Your task to perform on an android device: turn on wifi Image 0: 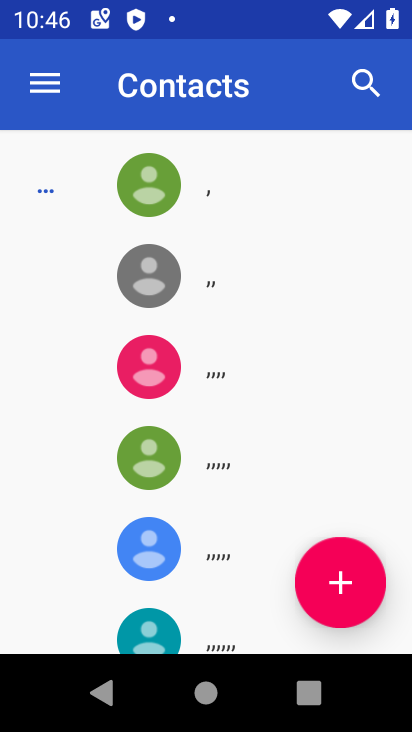
Step 0: press home button
Your task to perform on an android device: turn on wifi Image 1: 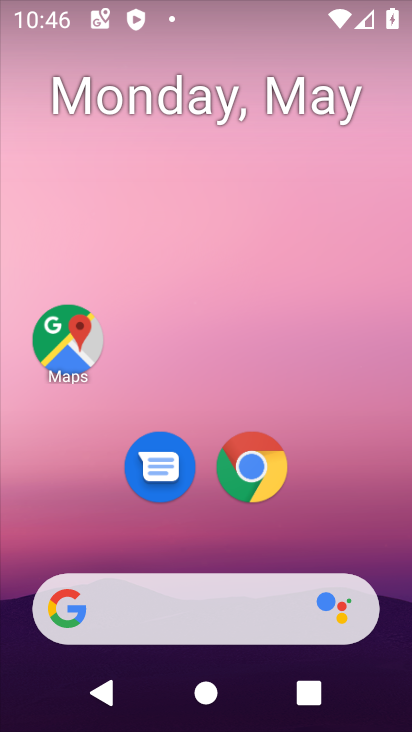
Step 1: drag from (399, 618) to (353, 99)
Your task to perform on an android device: turn on wifi Image 2: 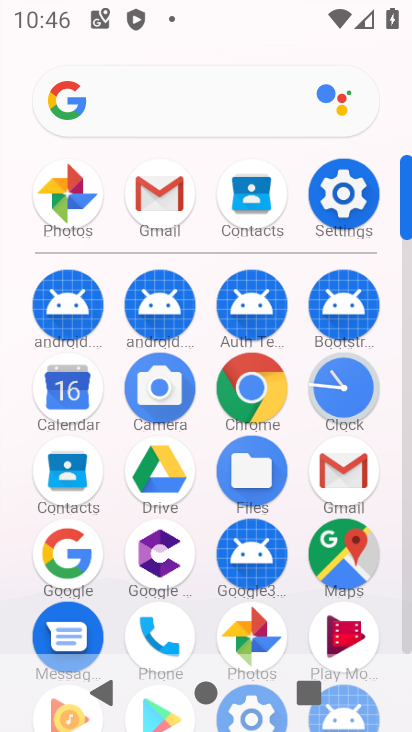
Step 2: click (407, 641)
Your task to perform on an android device: turn on wifi Image 3: 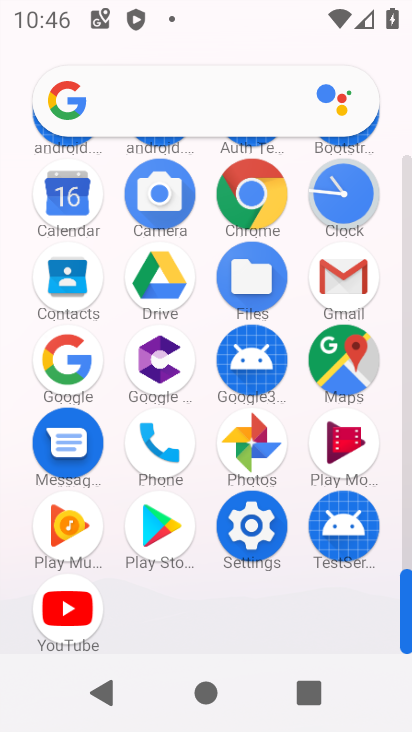
Step 3: click (255, 526)
Your task to perform on an android device: turn on wifi Image 4: 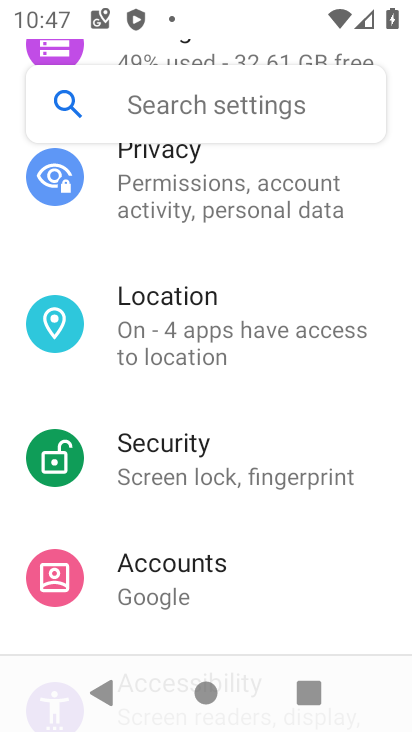
Step 4: drag from (344, 184) to (278, 571)
Your task to perform on an android device: turn on wifi Image 5: 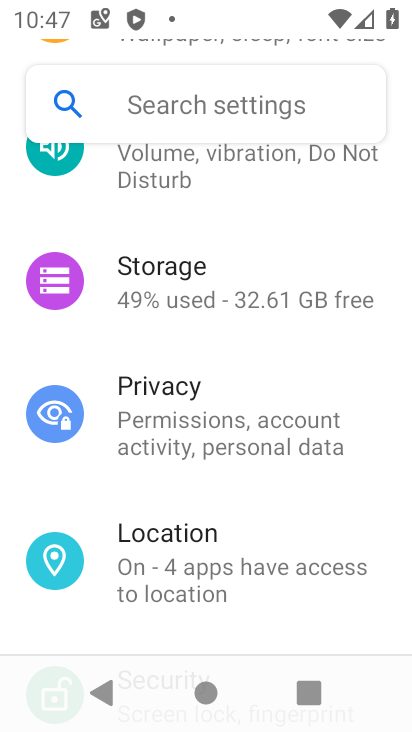
Step 5: drag from (371, 172) to (326, 524)
Your task to perform on an android device: turn on wifi Image 6: 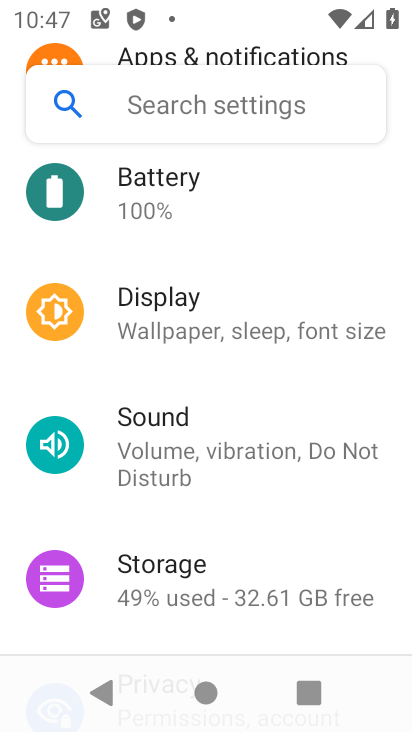
Step 6: drag from (348, 155) to (322, 477)
Your task to perform on an android device: turn on wifi Image 7: 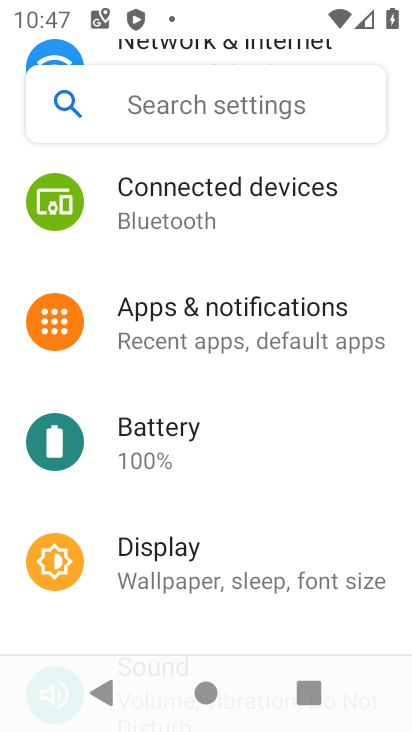
Step 7: drag from (365, 173) to (292, 562)
Your task to perform on an android device: turn on wifi Image 8: 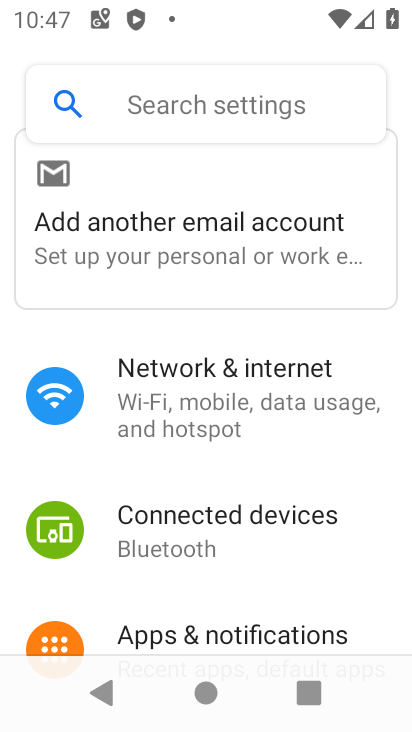
Step 8: click (171, 403)
Your task to perform on an android device: turn on wifi Image 9: 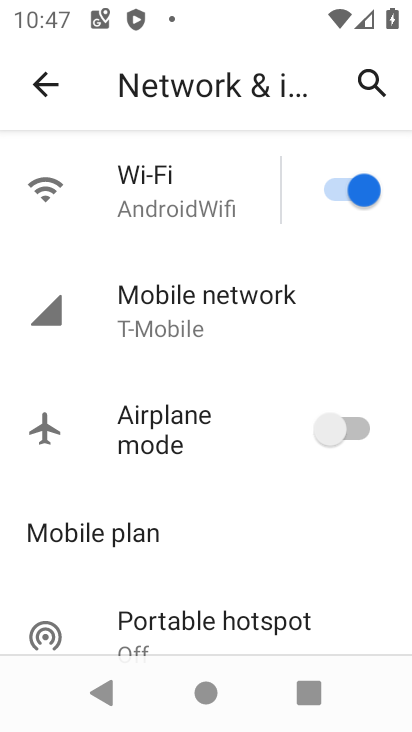
Step 9: task complete